Your task to perform on an android device: View the shopping cart on walmart.com. Add "razer nari" to the cart on walmart.com Image 0: 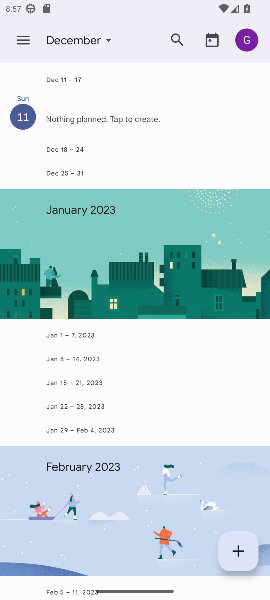
Step 0: press home button
Your task to perform on an android device: View the shopping cart on walmart.com. Add "razer nari" to the cart on walmart.com Image 1: 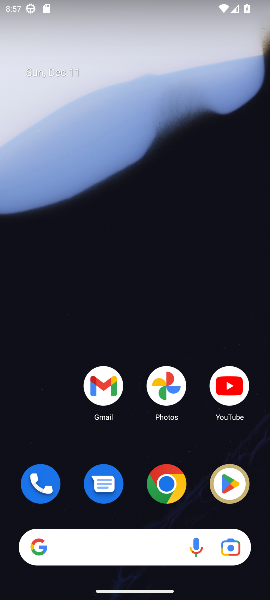
Step 1: click (172, 497)
Your task to perform on an android device: View the shopping cart on walmart.com. Add "razer nari" to the cart on walmart.com Image 2: 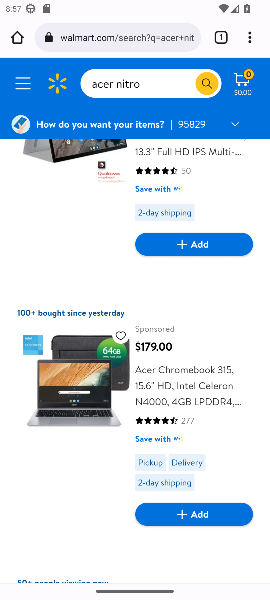
Step 2: click (125, 36)
Your task to perform on an android device: View the shopping cart on walmart.com. Add "razer nari" to the cart on walmart.com Image 3: 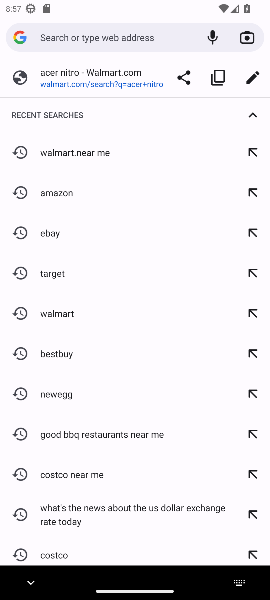
Step 3: press back button
Your task to perform on an android device: View the shopping cart on walmart.com. Add "razer nari" to the cart on walmart.com Image 4: 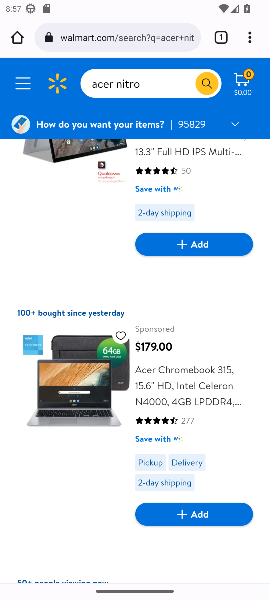
Step 4: click (241, 81)
Your task to perform on an android device: View the shopping cart on walmart.com. Add "razer nari" to the cart on walmart.com Image 5: 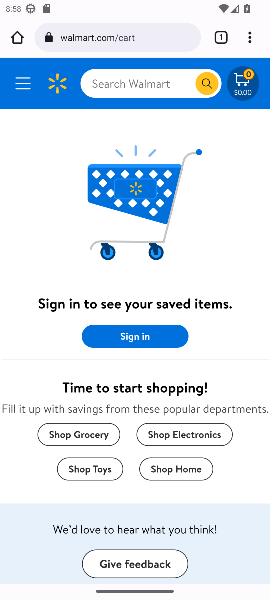
Step 5: click (103, 77)
Your task to perform on an android device: View the shopping cart on walmart.com. Add "razer nari" to the cart on walmart.com Image 6: 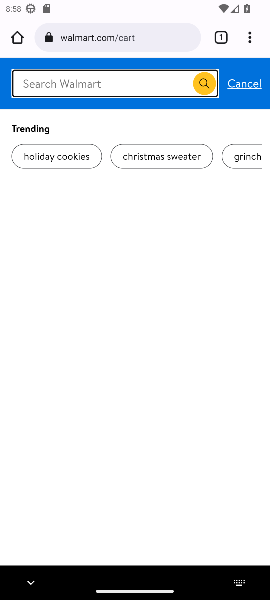
Step 6: type "razer nari"
Your task to perform on an android device: View the shopping cart on walmart.com. Add "razer nari" to the cart on walmart.com Image 7: 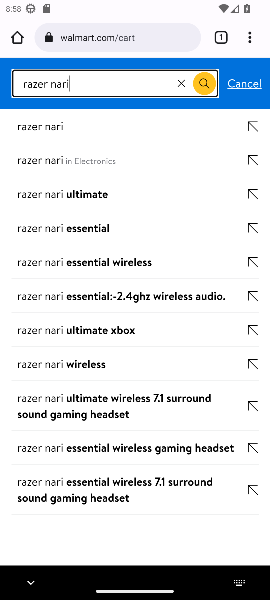
Step 7: click (55, 125)
Your task to perform on an android device: View the shopping cart on walmart.com. Add "razer nari" to the cart on walmart.com Image 8: 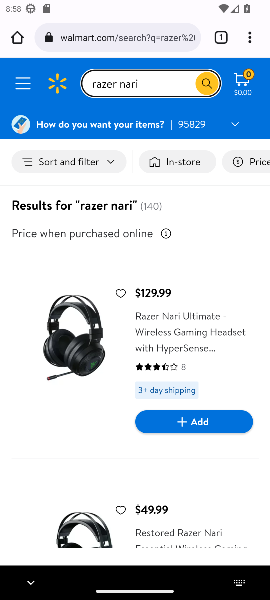
Step 8: click (176, 427)
Your task to perform on an android device: View the shopping cart on walmart.com. Add "razer nari" to the cart on walmart.com Image 9: 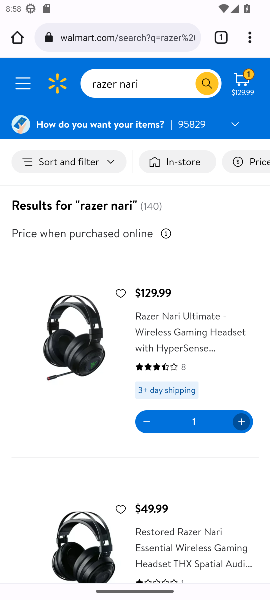
Step 9: task complete